Your task to perform on an android device: remove spam from my inbox in the gmail app Image 0: 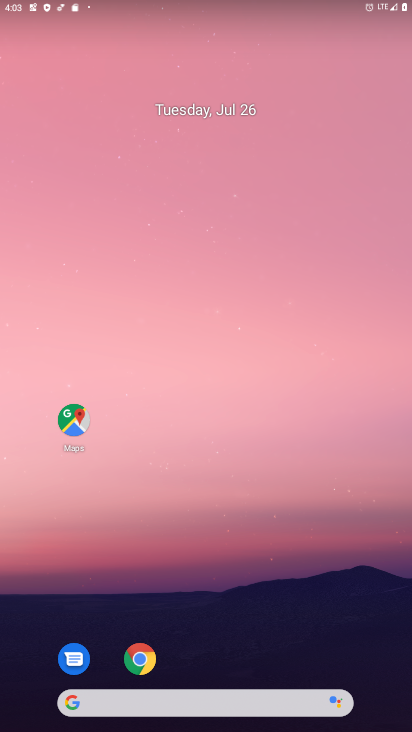
Step 0: press home button
Your task to perform on an android device: remove spam from my inbox in the gmail app Image 1: 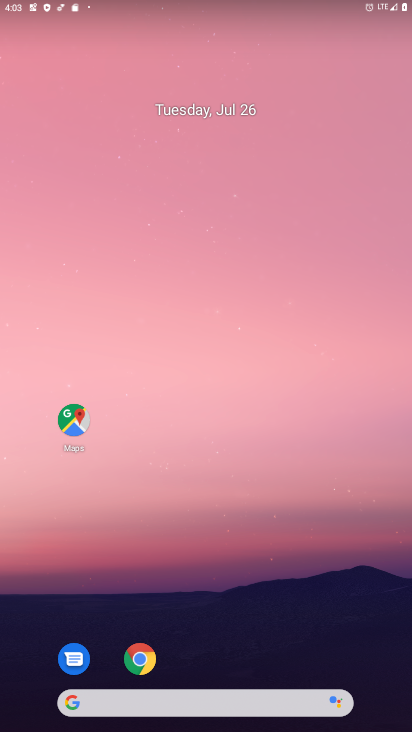
Step 1: drag from (208, 664) to (254, 108)
Your task to perform on an android device: remove spam from my inbox in the gmail app Image 2: 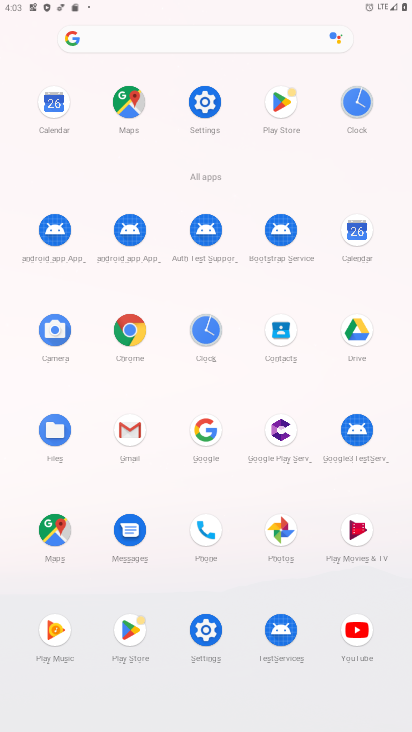
Step 2: click (128, 426)
Your task to perform on an android device: remove spam from my inbox in the gmail app Image 3: 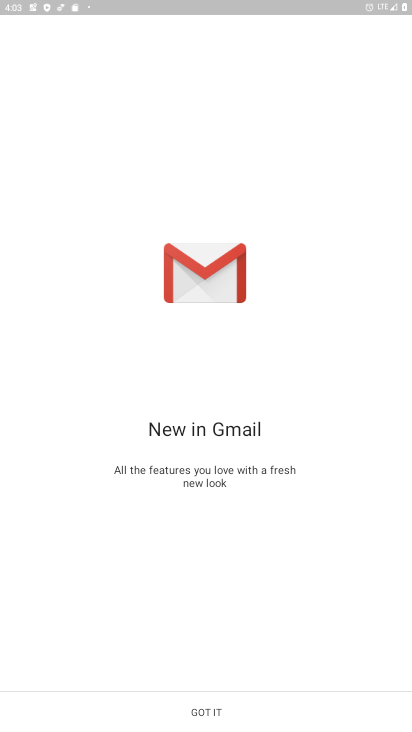
Step 3: click (206, 708)
Your task to perform on an android device: remove spam from my inbox in the gmail app Image 4: 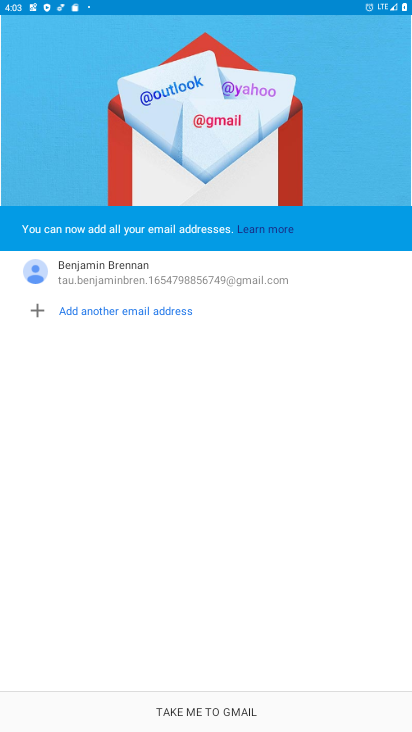
Step 4: click (210, 709)
Your task to perform on an android device: remove spam from my inbox in the gmail app Image 5: 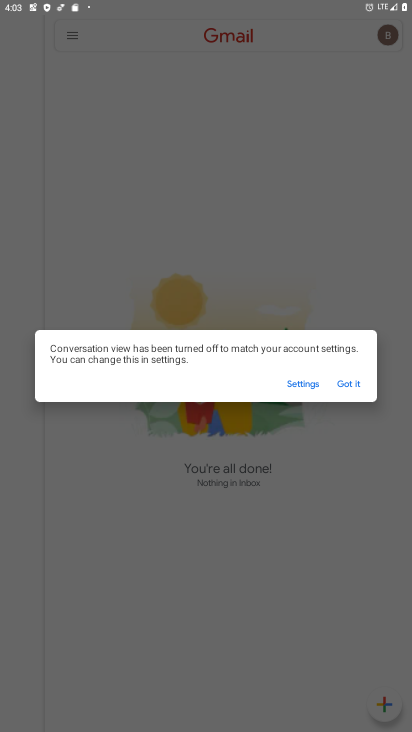
Step 5: click (353, 386)
Your task to perform on an android device: remove spam from my inbox in the gmail app Image 6: 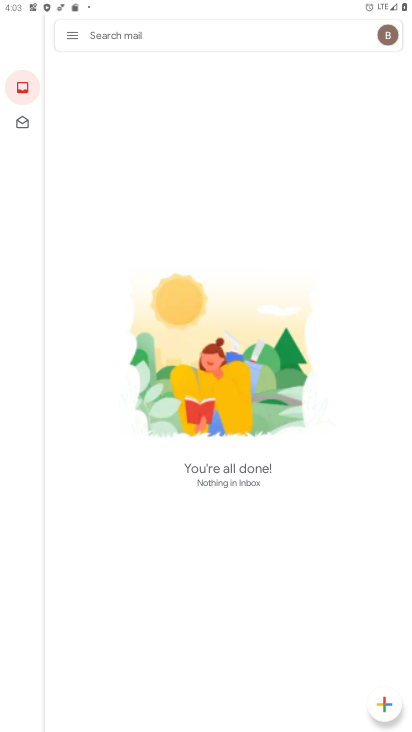
Step 6: click (72, 32)
Your task to perform on an android device: remove spam from my inbox in the gmail app Image 7: 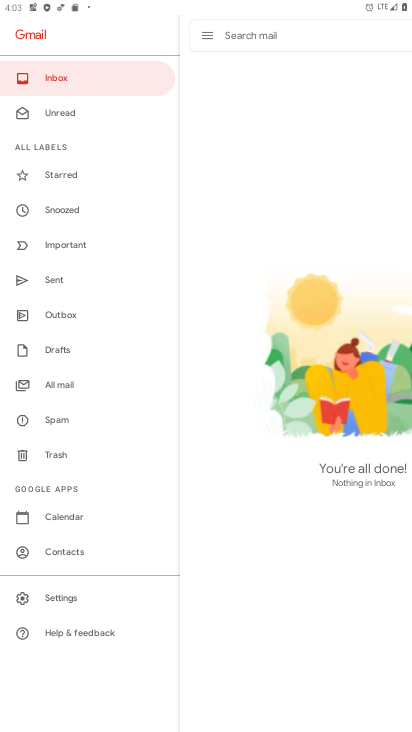
Step 7: click (64, 417)
Your task to perform on an android device: remove spam from my inbox in the gmail app Image 8: 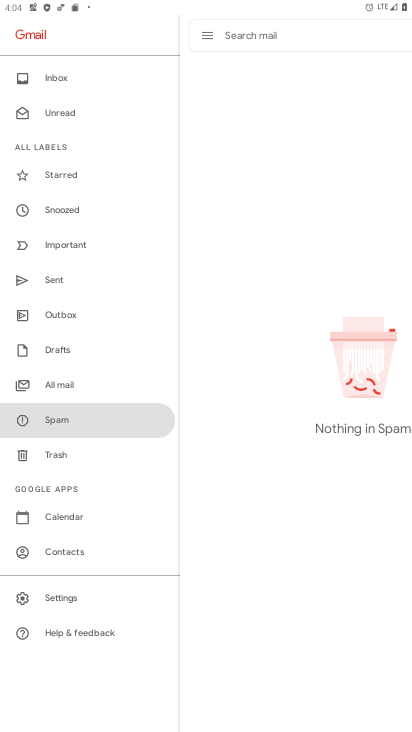
Step 8: task complete